Your task to perform on an android device: Clear the cart on bestbuy.com. Add sony triple a to the cart on bestbuy.com, then select checkout. Image 0: 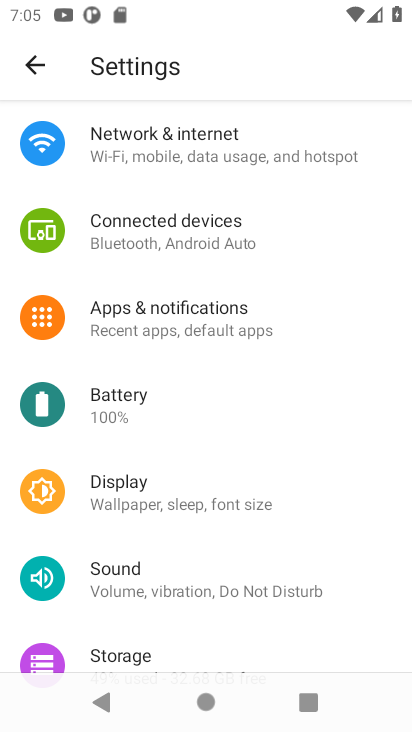
Step 0: press home button
Your task to perform on an android device: Clear the cart on bestbuy.com. Add sony triple a to the cart on bestbuy.com, then select checkout. Image 1: 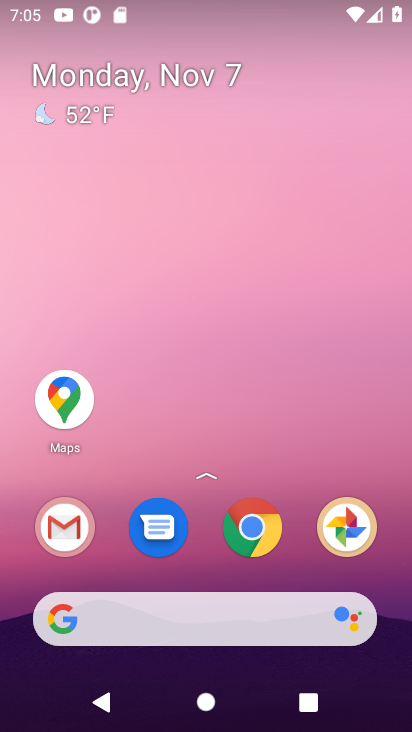
Step 1: click (266, 520)
Your task to perform on an android device: Clear the cart on bestbuy.com. Add sony triple a to the cart on bestbuy.com, then select checkout. Image 2: 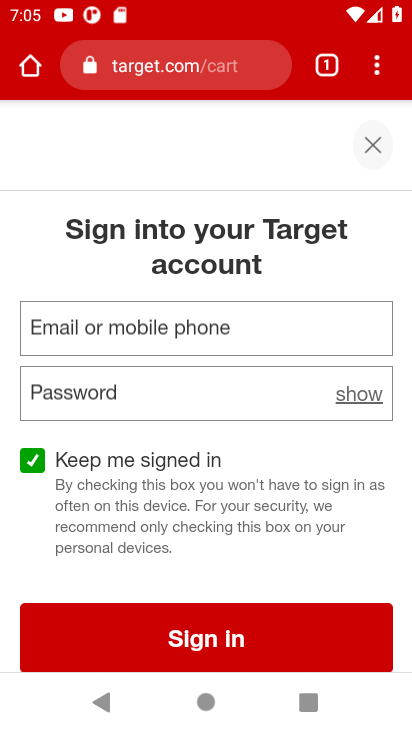
Step 2: click (173, 48)
Your task to perform on an android device: Clear the cart on bestbuy.com. Add sony triple a to the cart on bestbuy.com, then select checkout. Image 3: 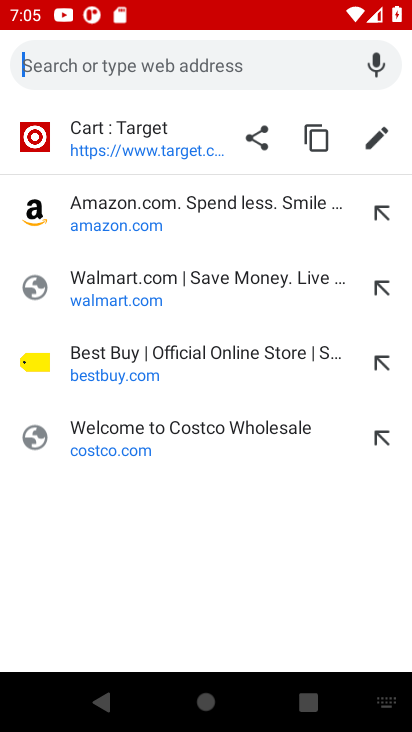
Step 3: type "bestbuy"
Your task to perform on an android device: Clear the cart on bestbuy.com. Add sony triple a to the cart on bestbuy.com, then select checkout. Image 4: 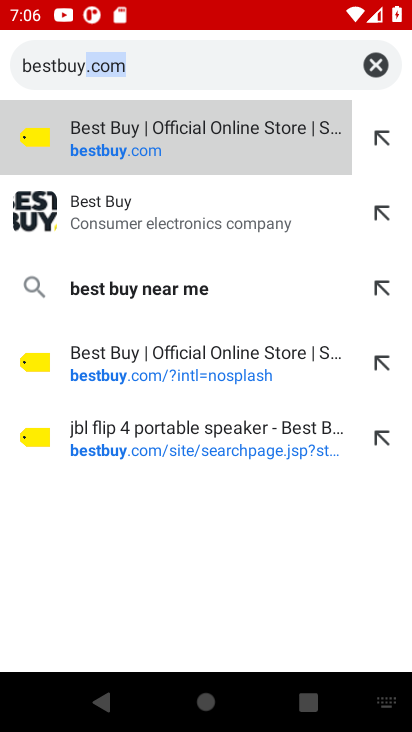
Step 4: click (124, 138)
Your task to perform on an android device: Clear the cart on bestbuy.com. Add sony triple a to the cart on bestbuy.com, then select checkout. Image 5: 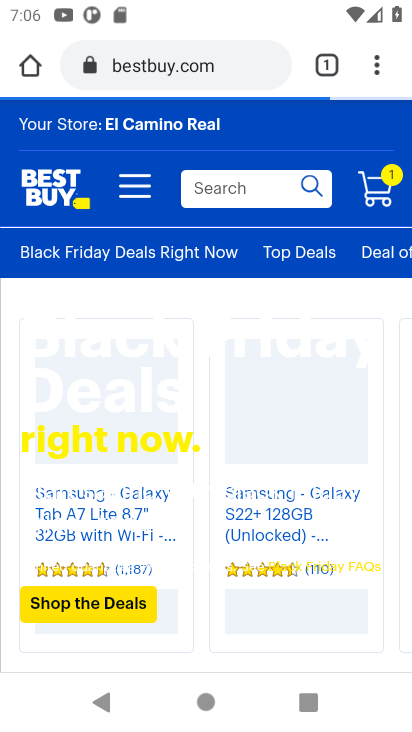
Step 5: click (257, 198)
Your task to perform on an android device: Clear the cart on bestbuy.com. Add sony triple a to the cart on bestbuy.com, then select checkout. Image 6: 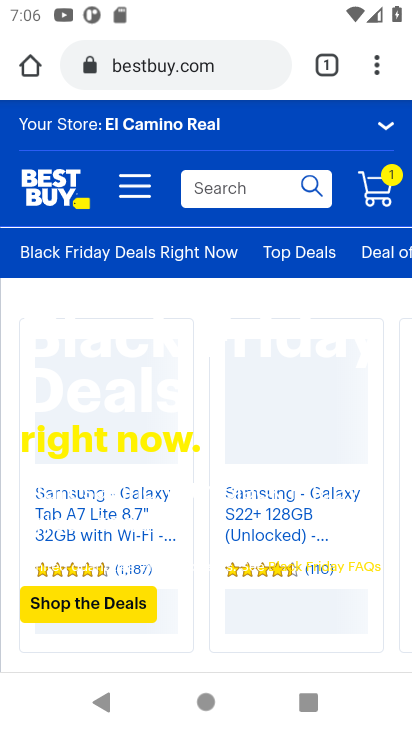
Step 6: click (240, 197)
Your task to perform on an android device: Clear the cart on bestbuy.com. Add sony triple a to the cart on bestbuy.com, then select checkout. Image 7: 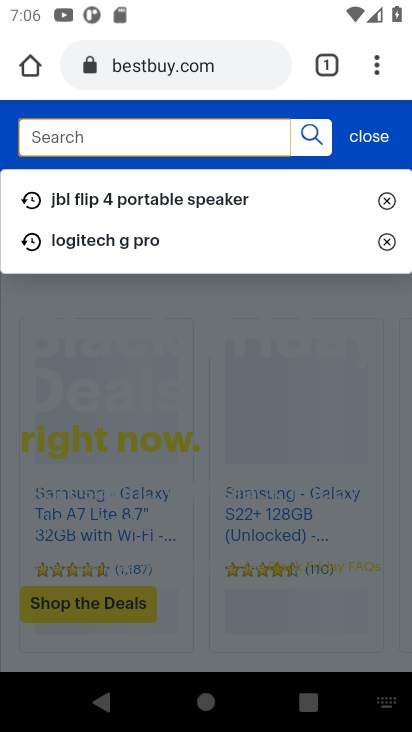
Step 7: type "sony aaa"
Your task to perform on an android device: Clear the cart on bestbuy.com. Add sony triple a to the cart on bestbuy.com, then select checkout. Image 8: 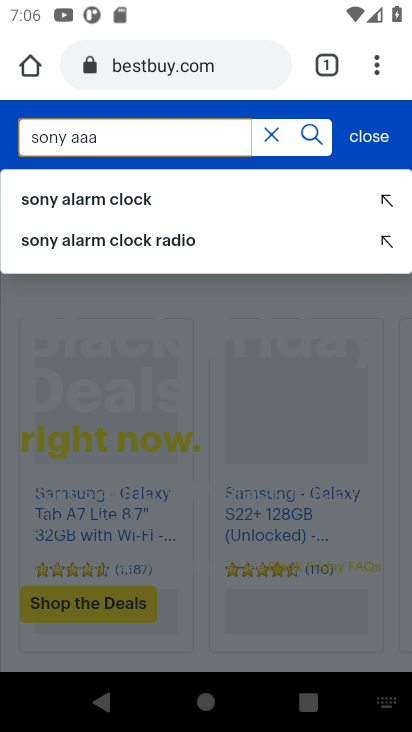
Step 8: press enter
Your task to perform on an android device: Clear the cart on bestbuy.com. Add sony triple a to the cart on bestbuy.com, then select checkout. Image 9: 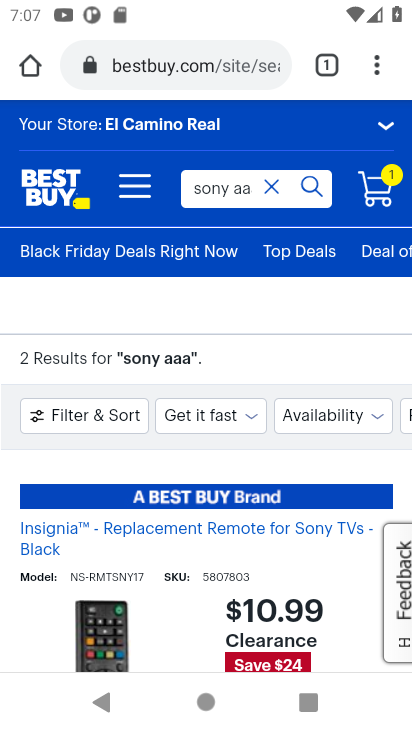
Step 9: task complete